Your task to perform on an android device: open app "Venmo" Image 0: 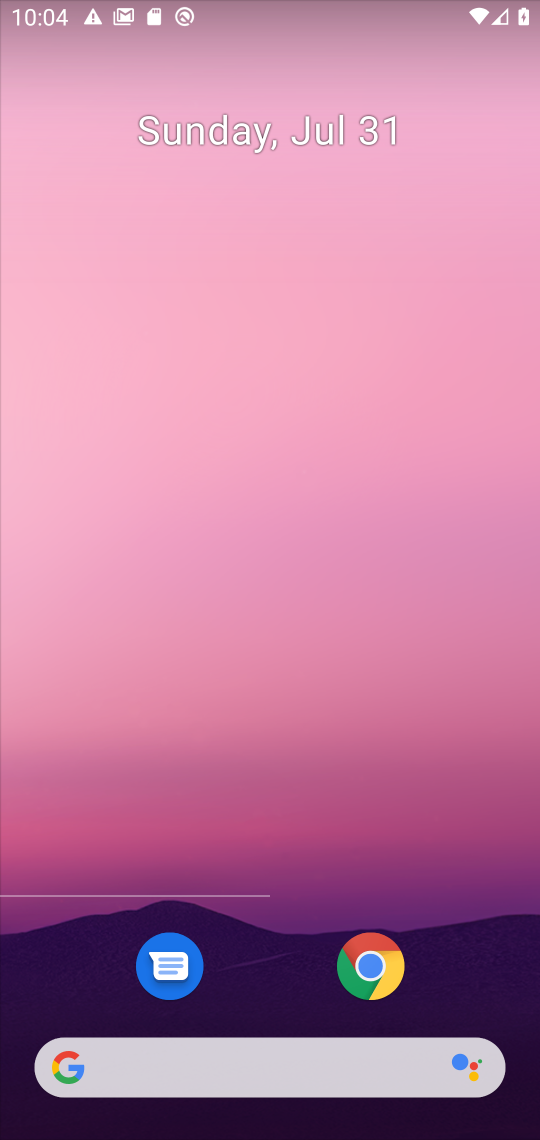
Step 0: press home button
Your task to perform on an android device: open app "Venmo" Image 1: 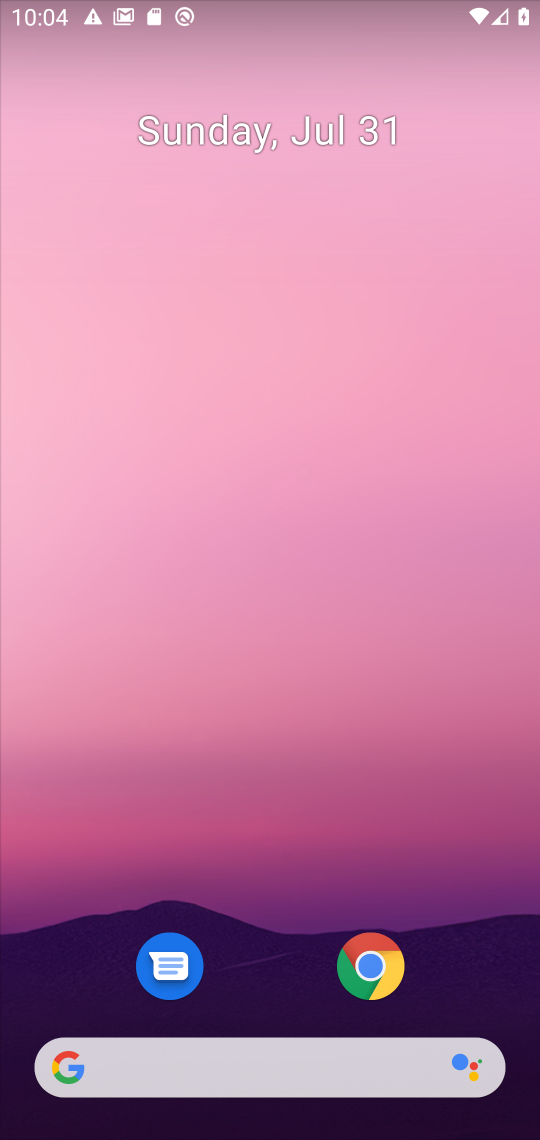
Step 1: drag from (234, 784) to (208, 0)
Your task to perform on an android device: open app "Venmo" Image 2: 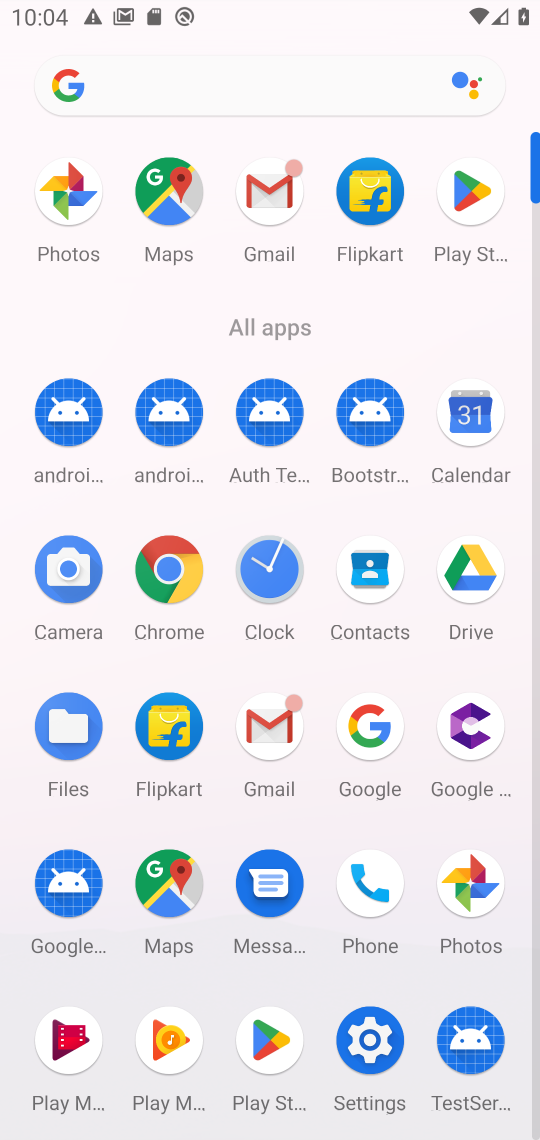
Step 2: click (467, 205)
Your task to perform on an android device: open app "Venmo" Image 3: 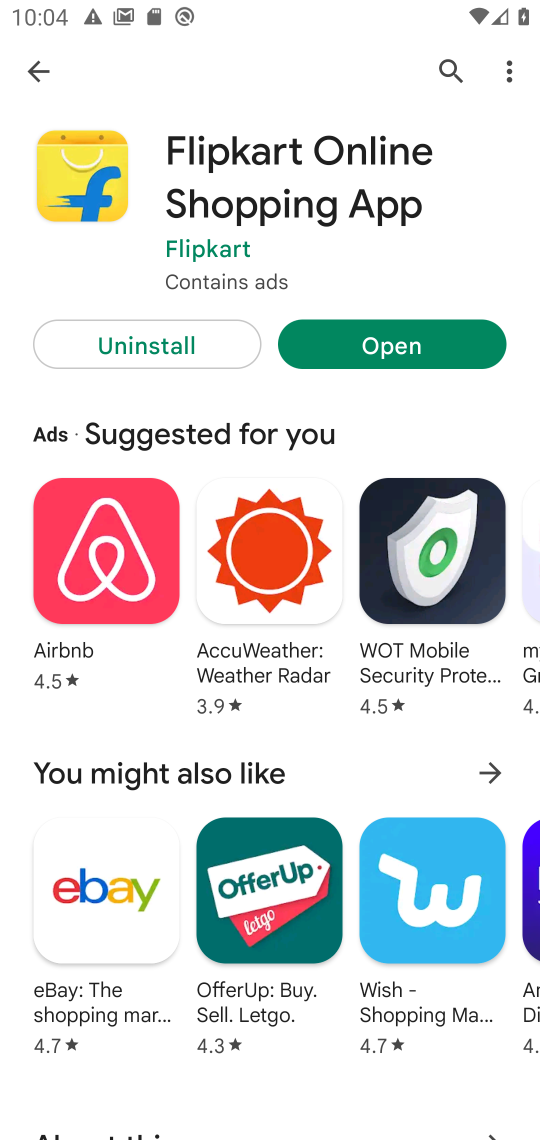
Step 3: click (44, 52)
Your task to perform on an android device: open app "Venmo" Image 4: 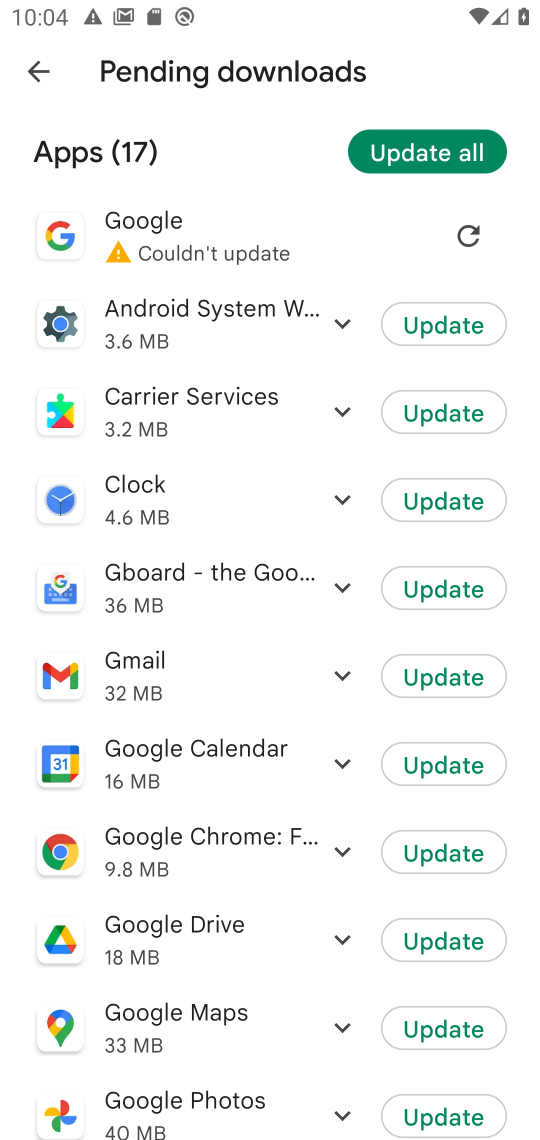
Step 4: click (39, 58)
Your task to perform on an android device: open app "Venmo" Image 5: 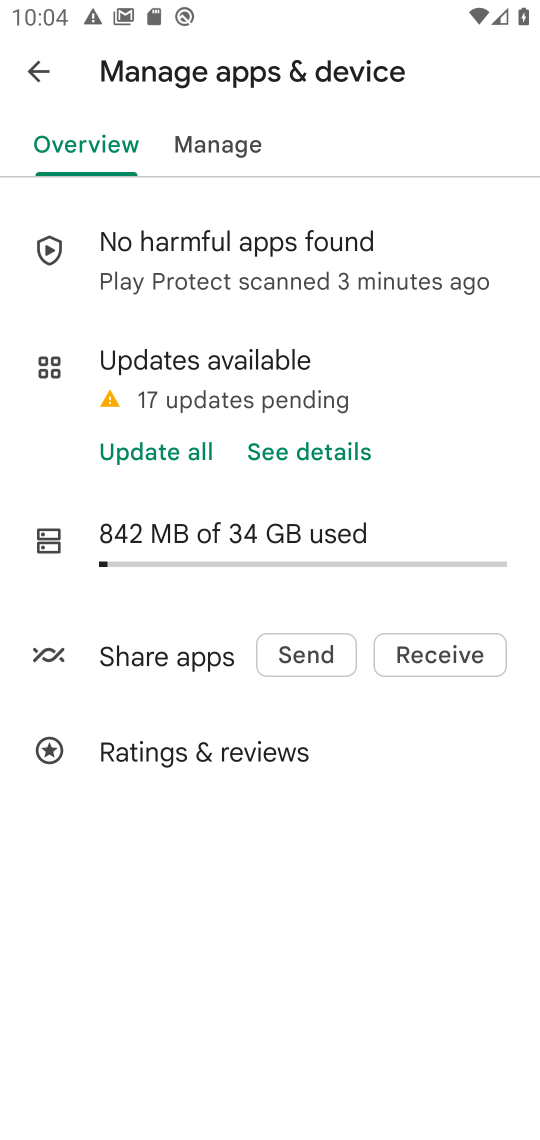
Step 5: click (46, 65)
Your task to perform on an android device: open app "Venmo" Image 6: 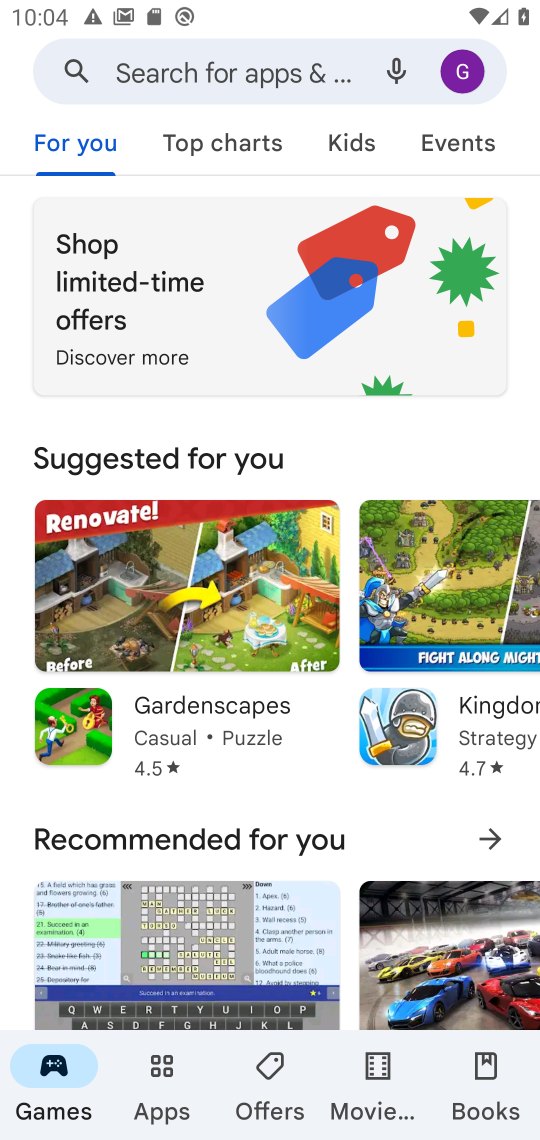
Step 6: click (195, 70)
Your task to perform on an android device: open app "Venmo" Image 7: 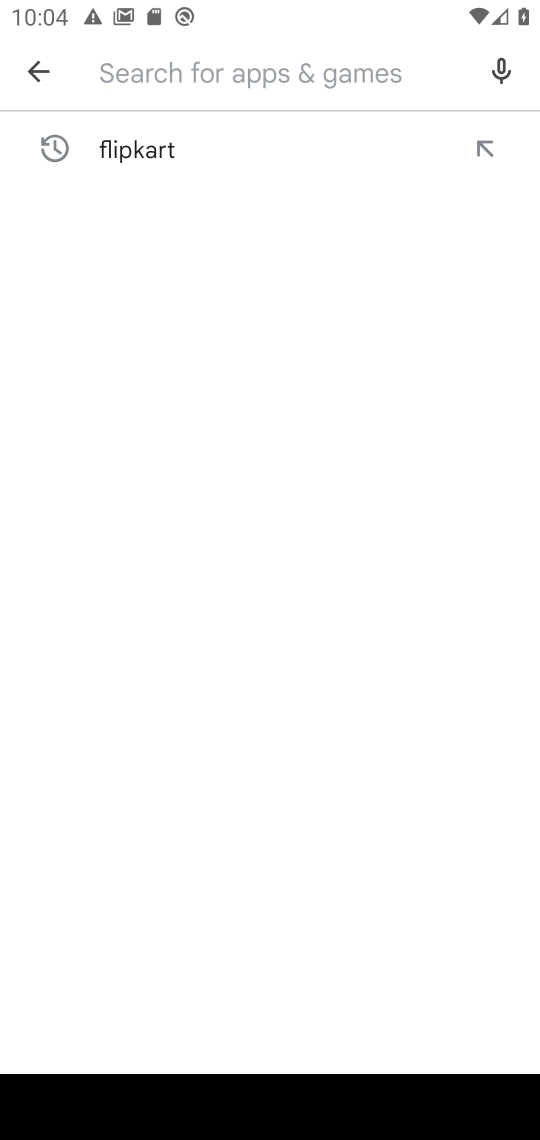
Step 7: type "venmo"
Your task to perform on an android device: open app "Venmo" Image 8: 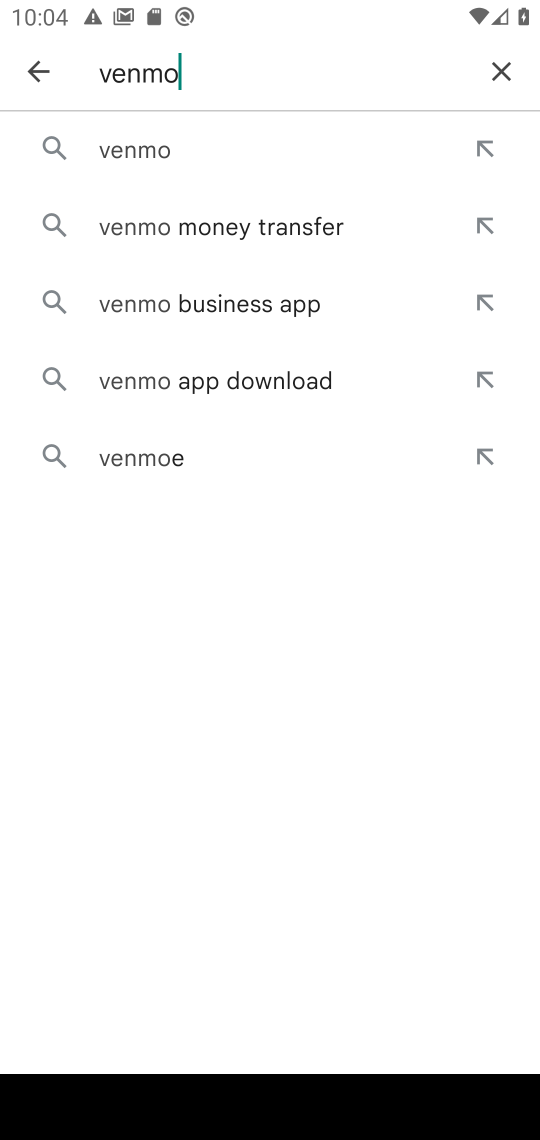
Step 8: click (154, 157)
Your task to perform on an android device: open app "Venmo" Image 9: 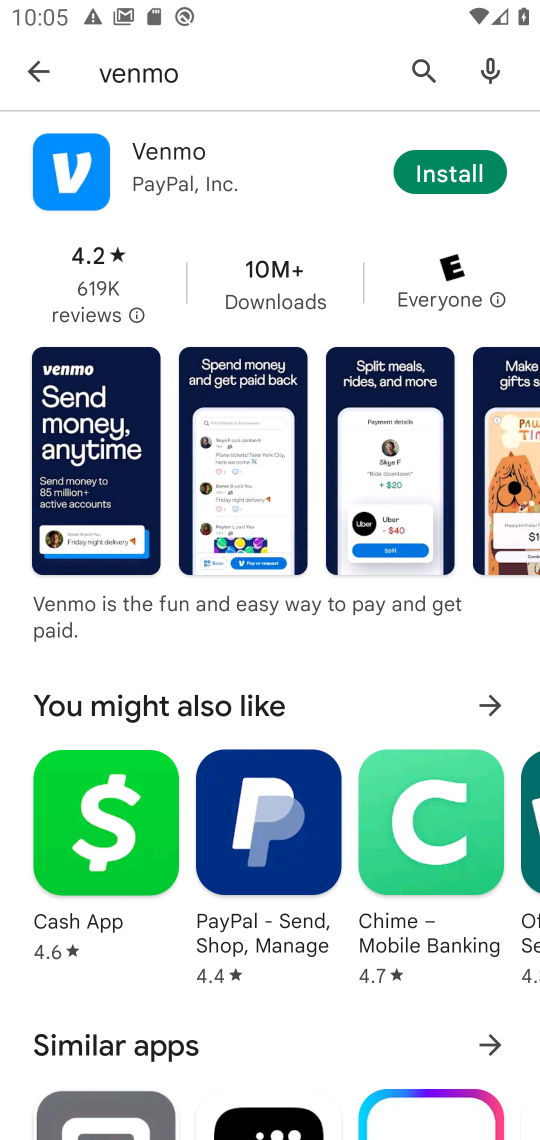
Step 9: task complete